Your task to perform on an android device: turn off airplane mode Image 0: 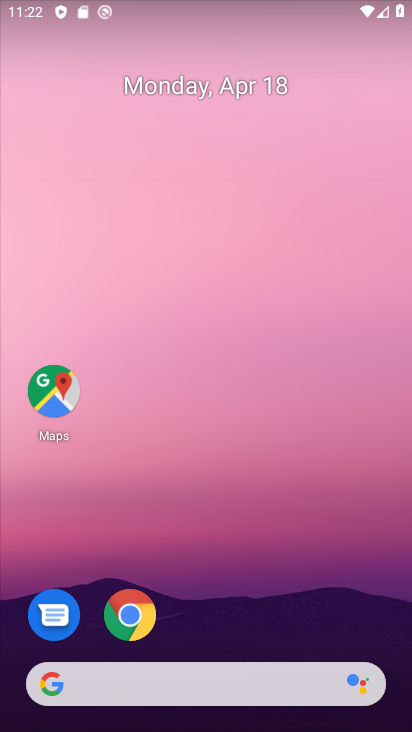
Step 0: drag from (201, 729) to (195, 69)
Your task to perform on an android device: turn off airplane mode Image 1: 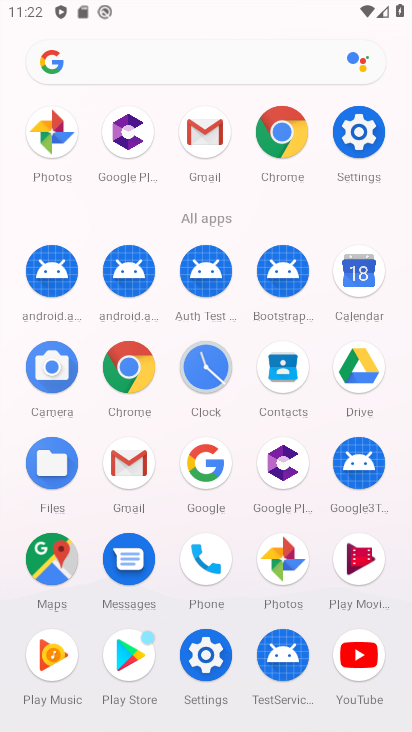
Step 1: click (354, 129)
Your task to perform on an android device: turn off airplane mode Image 2: 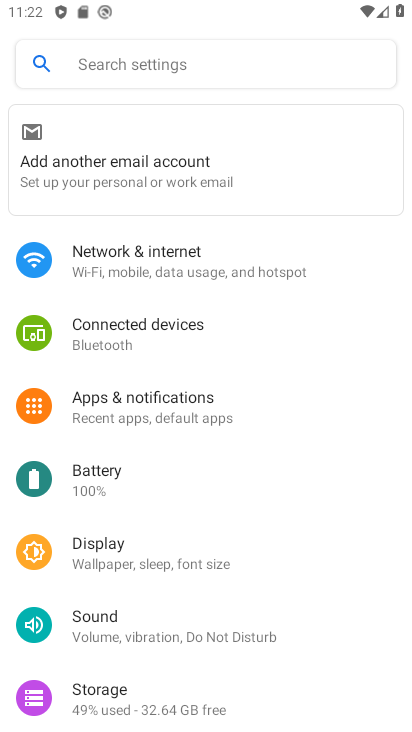
Step 2: click (140, 260)
Your task to perform on an android device: turn off airplane mode Image 3: 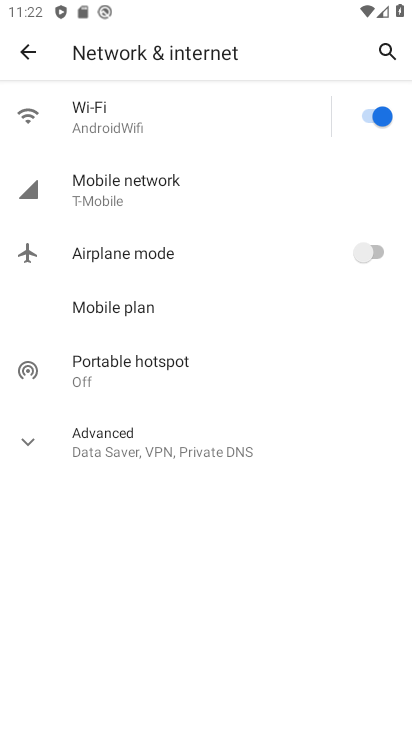
Step 3: task complete